Your task to perform on an android device: turn on bluetooth scan Image 0: 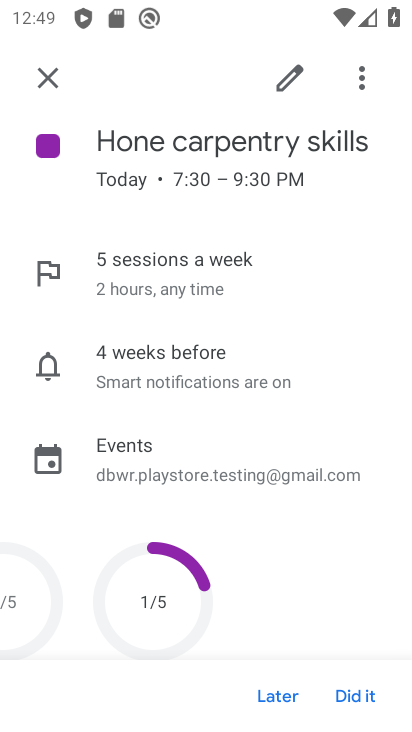
Step 0: press home button
Your task to perform on an android device: turn on bluetooth scan Image 1: 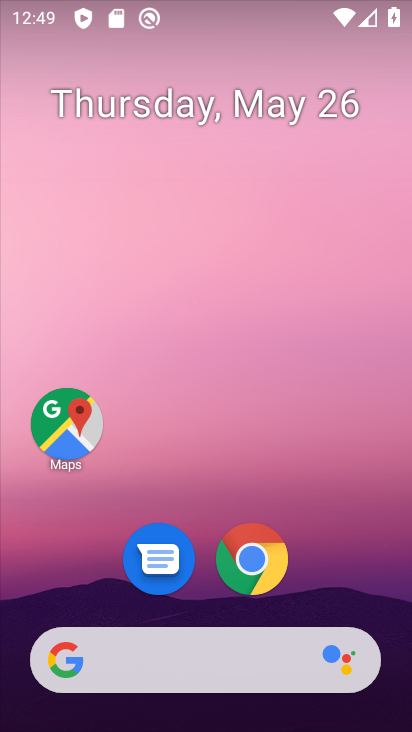
Step 1: drag from (194, 659) to (310, 99)
Your task to perform on an android device: turn on bluetooth scan Image 2: 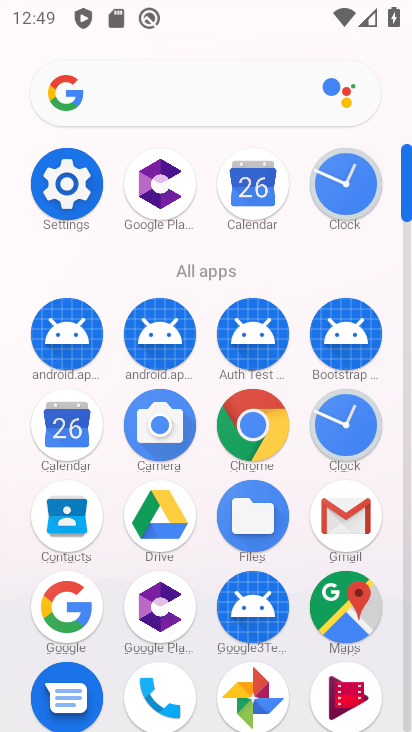
Step 2: click (60, 181)
Your task to perform on an android device: turn on bluetooth scan Image 3: 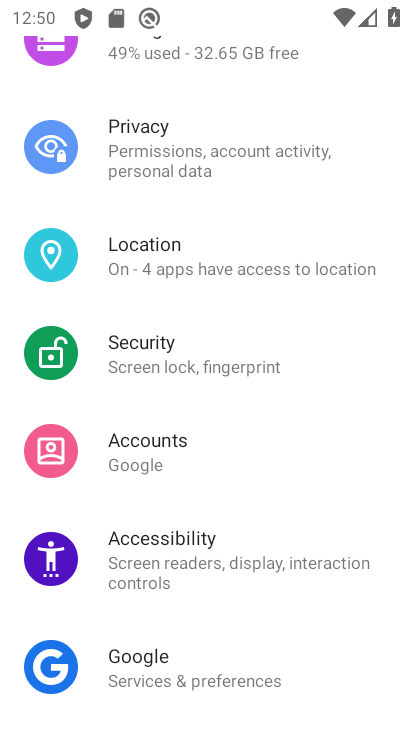
Step 3: click (184, 248)
Your task to perform on an android device: turn on bluetooth scan Image 4: 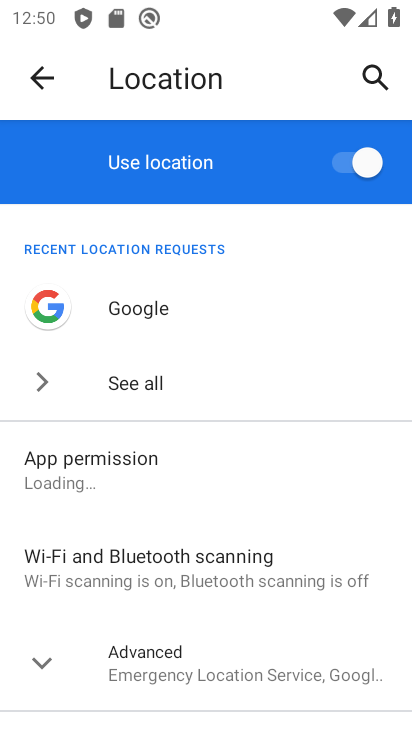
Step 4: click (182, 556)
Your task to perform on an android device: turn on bluetooth scan Image 5: 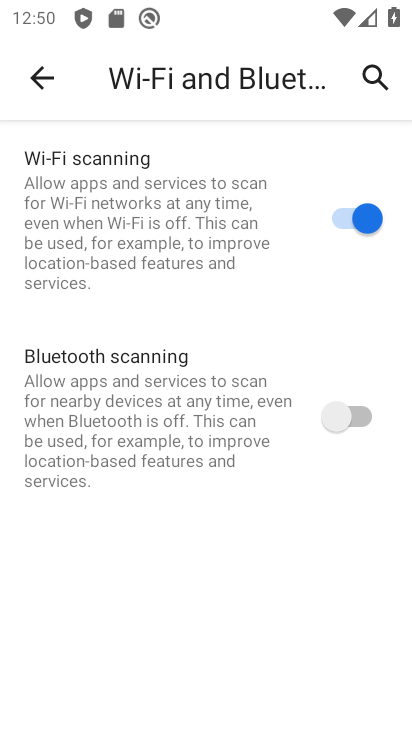
Step 5: click (375, 412)
Your task to perform on an android device: turn on bluetooth scan Image 6: 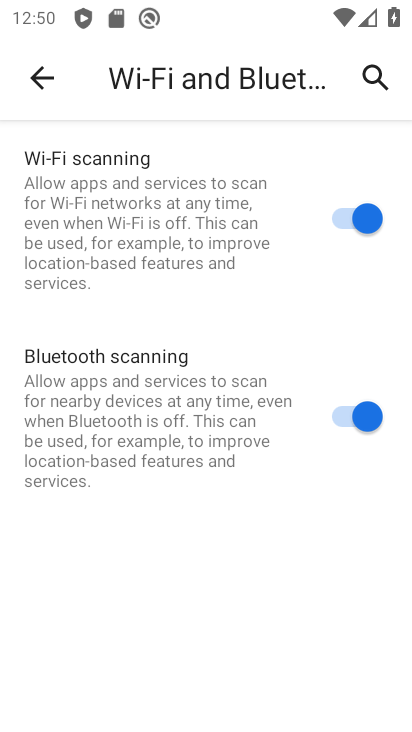
Step 6: task complete